Your task to perform on an android device: turn off improve location accuracy Image 0: 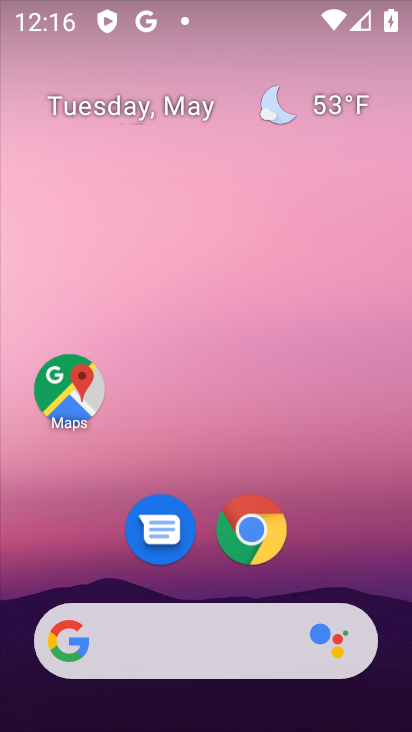
Step 0: drag from (222, 720) to (248, 183)
Your task to perform on an android device: turn off improve location accuracy Image 1: 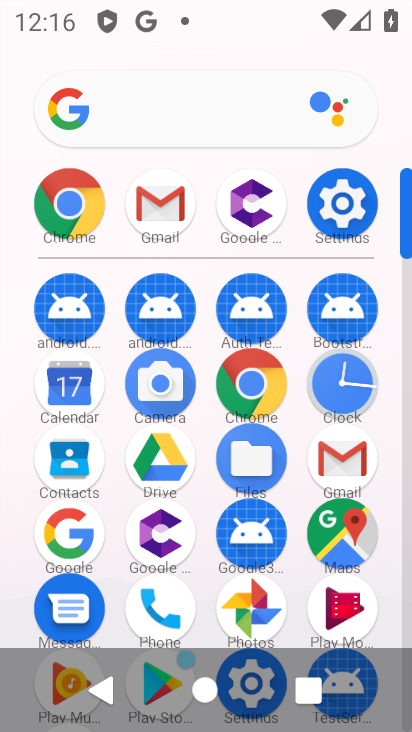
Step 1: click (334, 211)
Your task to perform on an android device: turn off improve location accuracy Image 2: 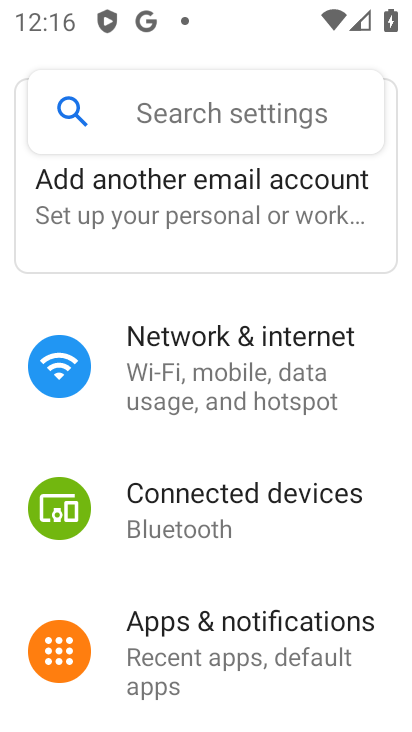
Step 2: drag from (220, 690) to (226, 289)
Your task to perform on an android device: turn off improve location accuracy Image 3: 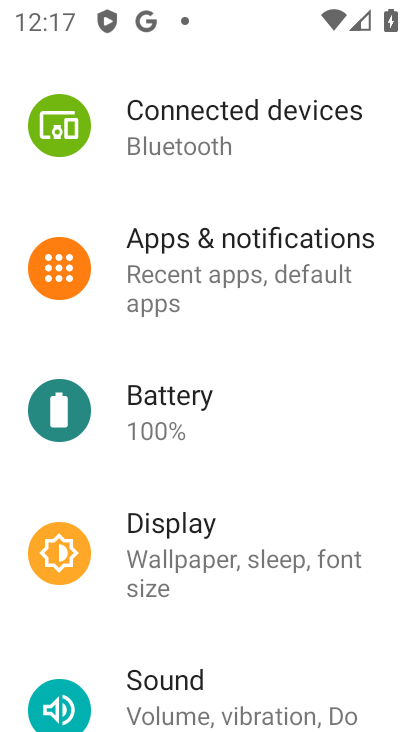
Step 3: drag from (243, 683) to (151, 115)
Your task to perform on an android device: turn off improve location accuracy Image 4: 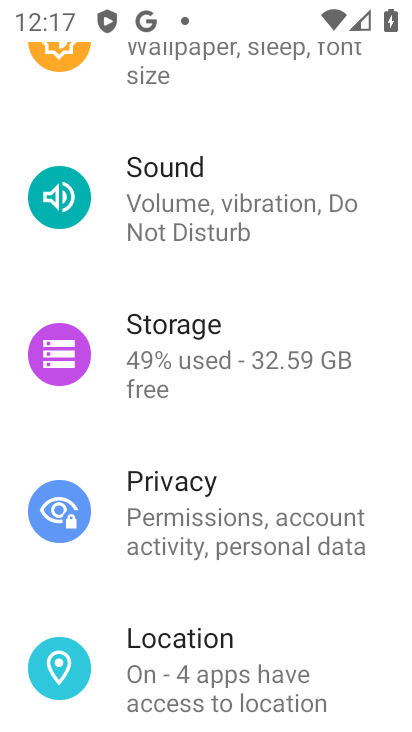
Step 4: drag from (208, 676) to (194, 321)
Your task to perform on an android device: turn off improve location accuracy Image 5: 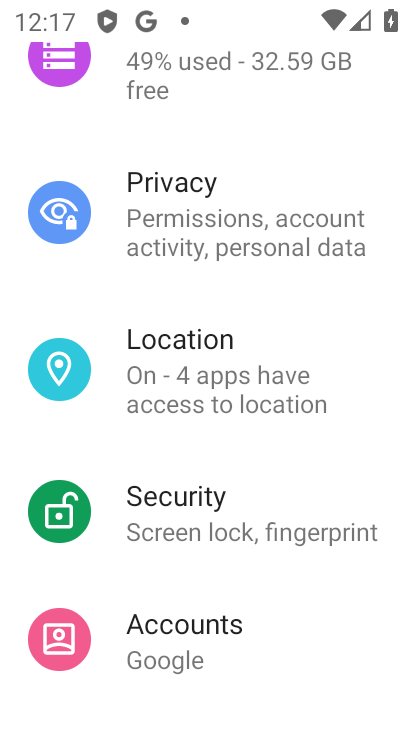
Step 5: drag from (197, 666) to (192, 323)
Your task to perform on an android device: turn off improve location accuracy Image 6: 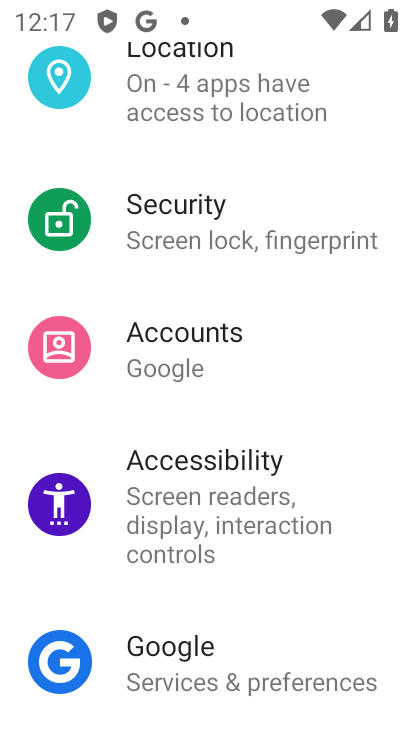
Step 6: click (187, 99)
Your task to perform on an android device: turn off improve location accuracy Image 7: 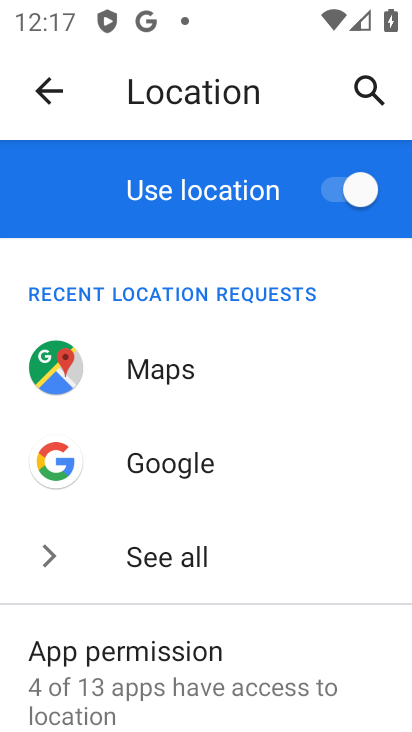
Step 7: drag from (197, 676) to (198, 406)
Your task to perform on an android device: turn off improve location accuracy Image 8: 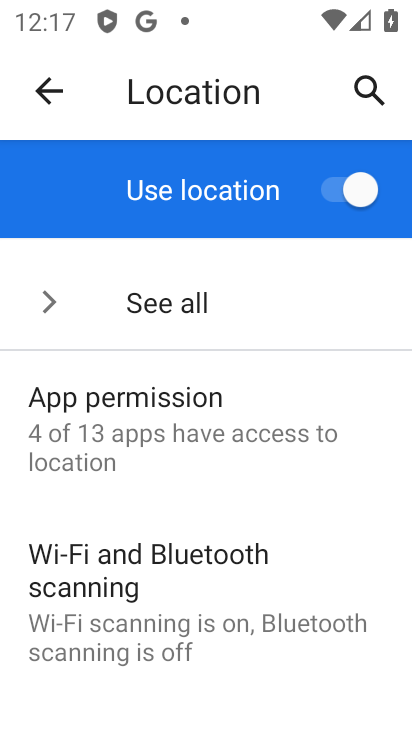
Step 8: drag from (187, 662) to (182, 294)
Your task to perform on an android device: turn off improve location accuracy Image 9: 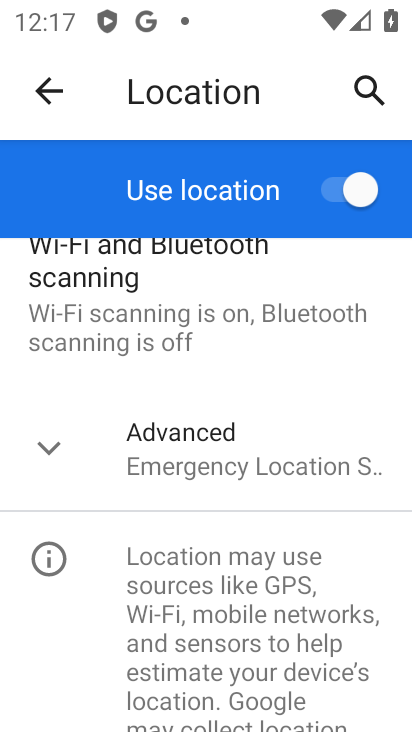
Step 9: click (177, 448)
Your task to perform on an android device: turn off improve location accuracy Image 10: 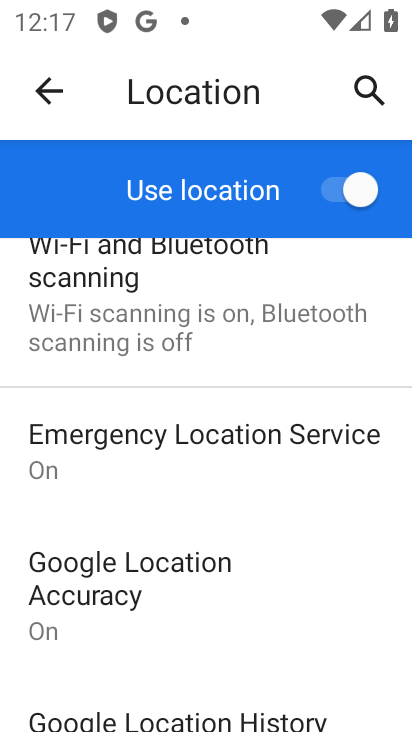
Step 10: drag from (152, 658) to (151, 365)
Your task to perform on an android device: turn off improve location accuracy Image 11: 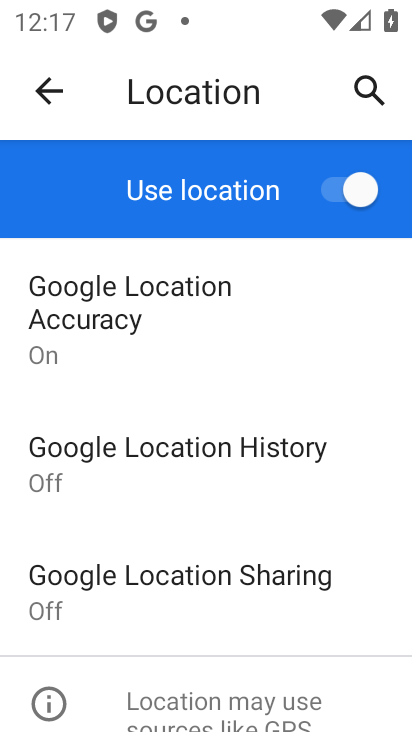
Step 11: click (121, 313)
Your task to perform on an android device: turn off improve location accuracy Image 12: 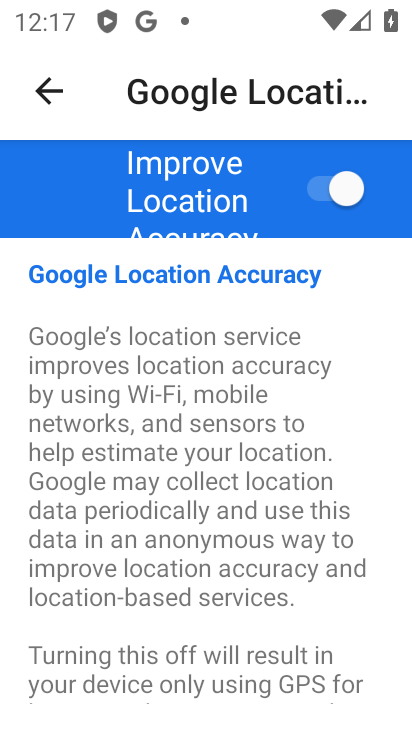
Step 12: click (318, 186)
Your task to perform on an android device: turn off improve location accuracy Image 13: 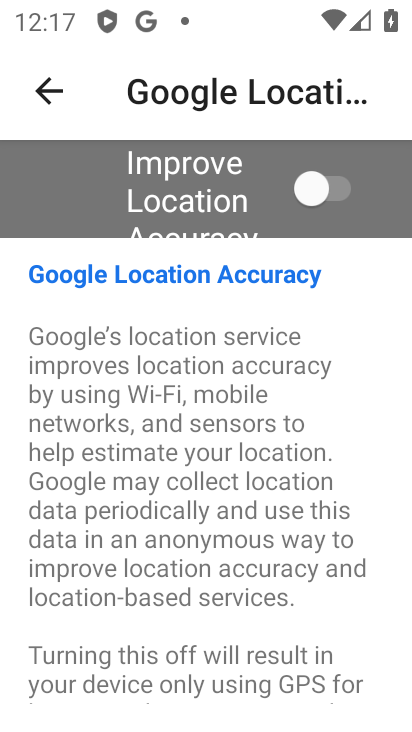
Step 13: task complete